Your task to perform on an android device: Open Chrome and go to the settings page Image 0: 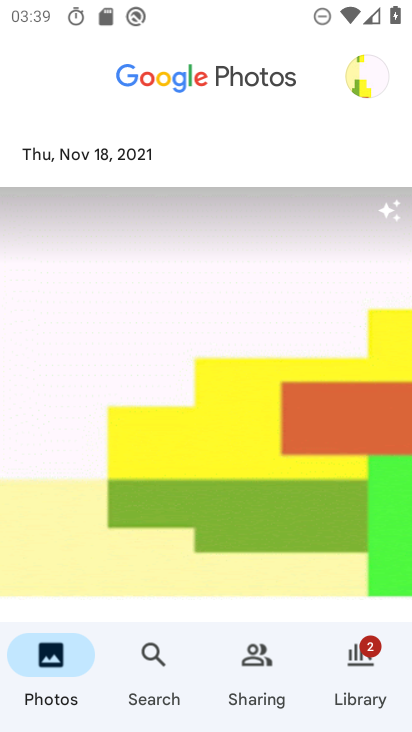
Step 0: press home button
Your task to perform on an android device: Open Chrome and go to the settings page Image 1: 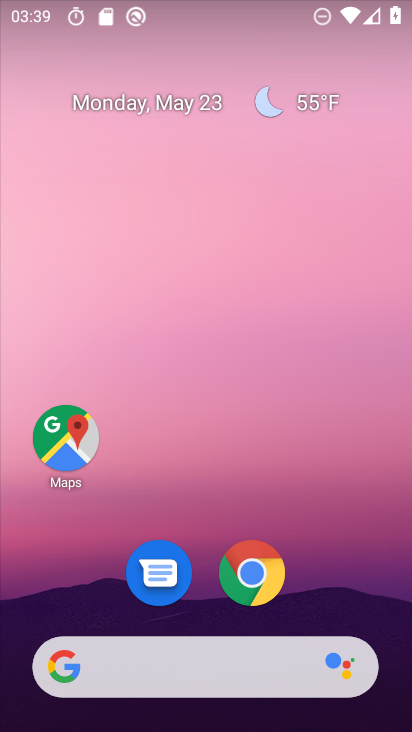
Step 1: click (247, 570)
Your task to perform on an android device: Open Chrome and go to the settings page Image 2: 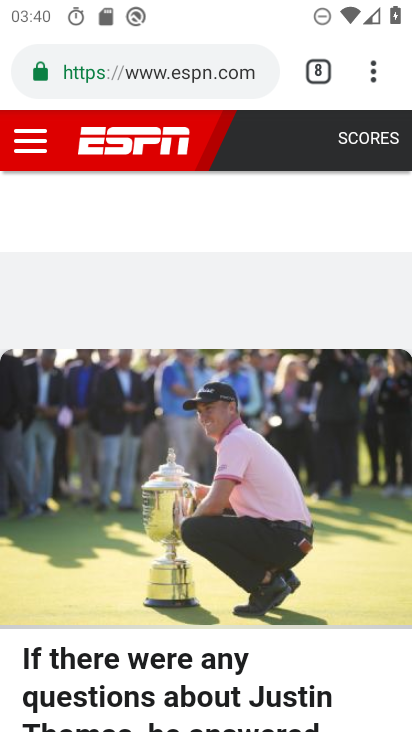
Step 2: click (385, 70)
Your task to perform on an android device: Open Chrome and go to the settings page Image 3: 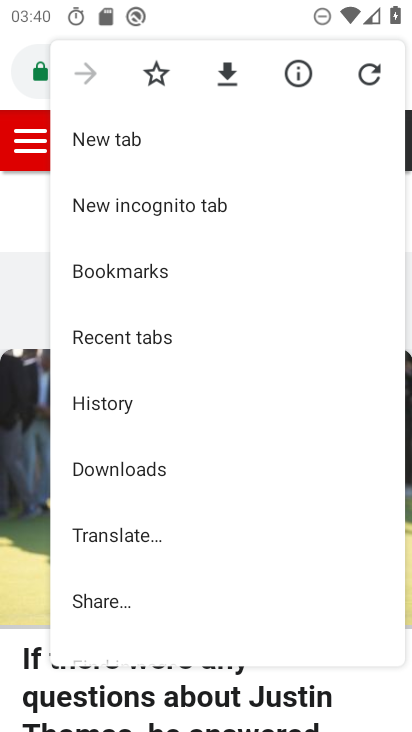
Step 3: drag from (193, 557) to (152, 115)
Your task to perform on an android device: Open Chrome and go to the settings page Image 4: 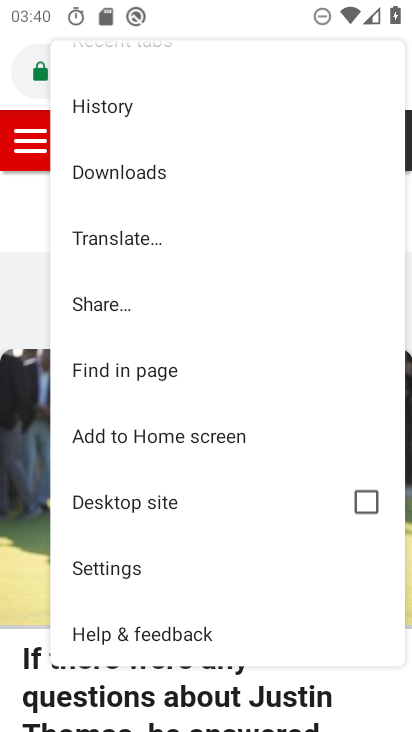
Step 4: click (110, 565)
Your task to perform on an android device: Open Chrome and go to the settings page Image 5: 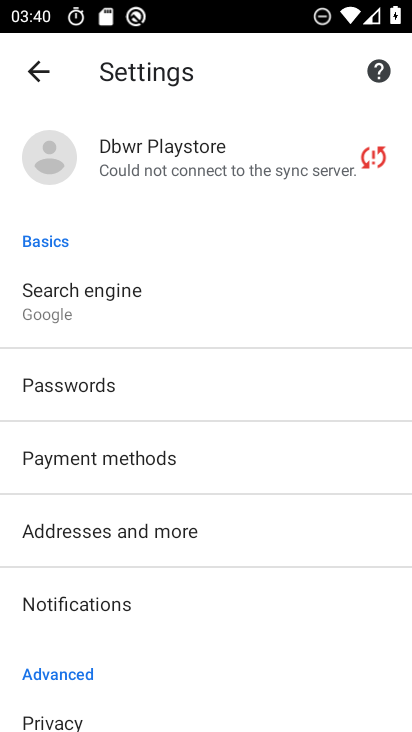
Step 5: task complete